Your task to perform on an android device: turn on translation in the chrome app Image 0: 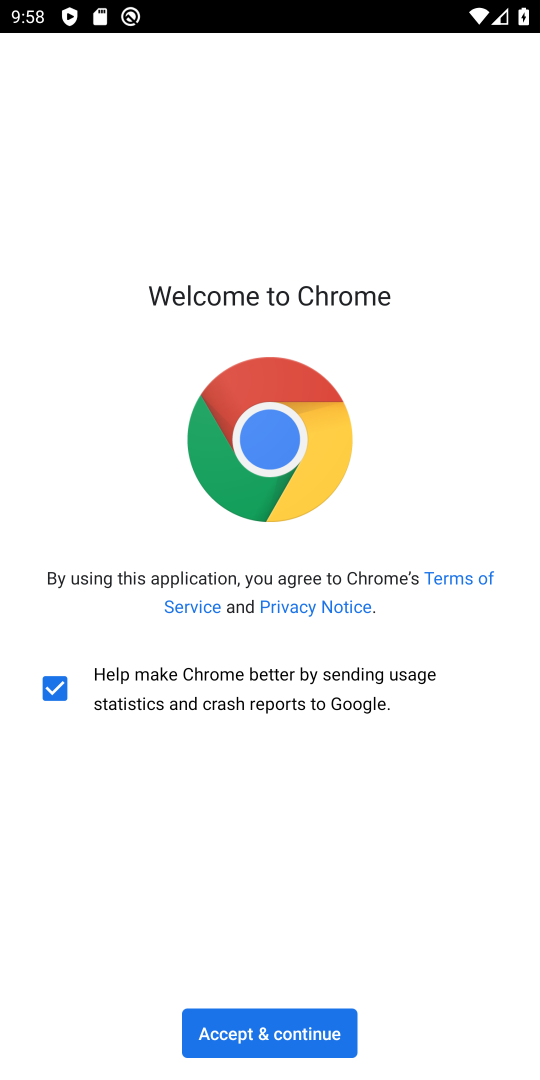
Step 0: click (328, 1043)
Your task to perform on an android device: turn on translation in the chrome app Image 1: 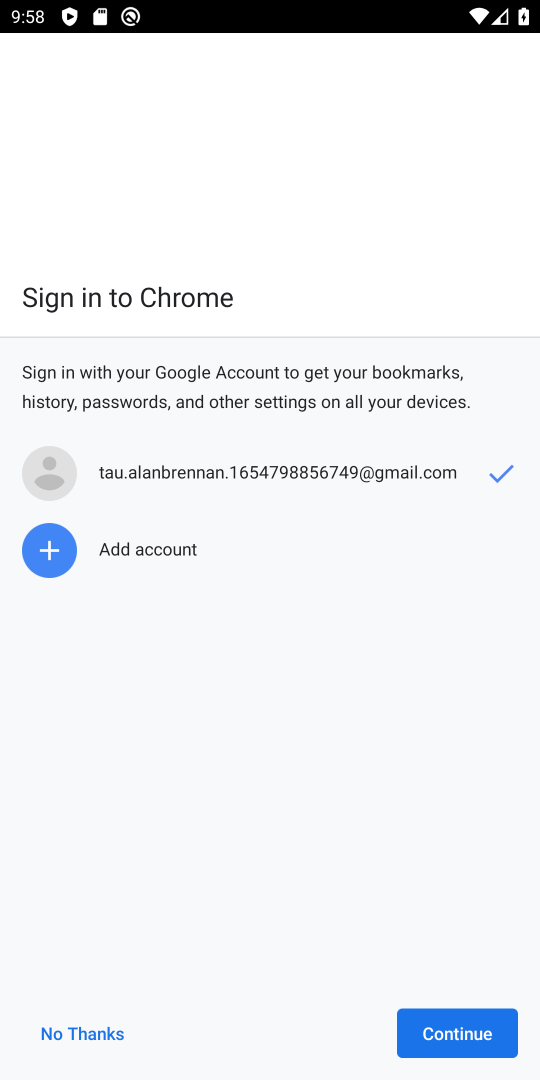
Step 1: click (494, 1041)
Your task to perform on an android device: turn on translation in the chrome app Image 2: 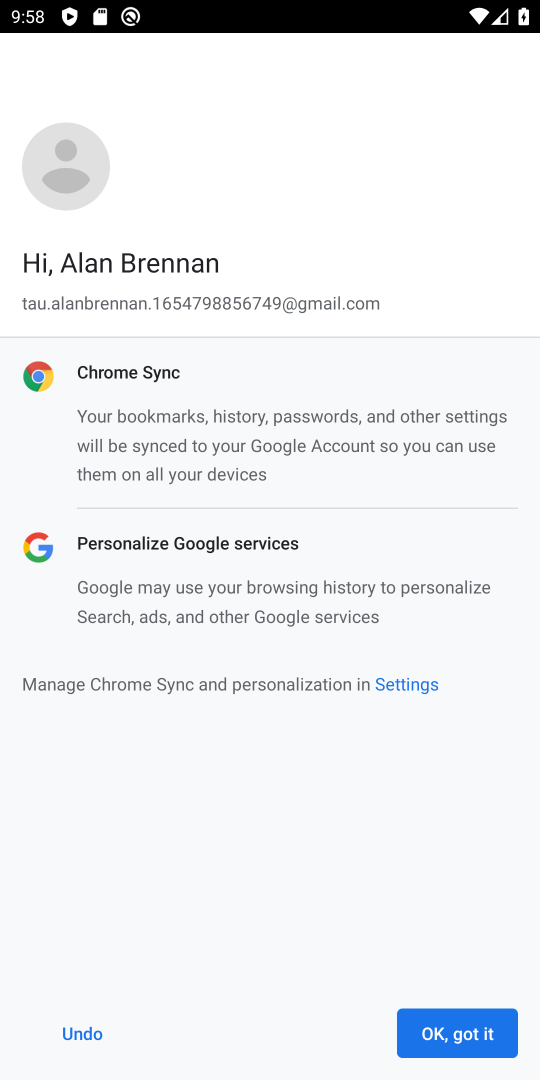
Step 2: click (493, 1040)
Your task to perform on an android device: turn on translation in the chrome app Image 3: 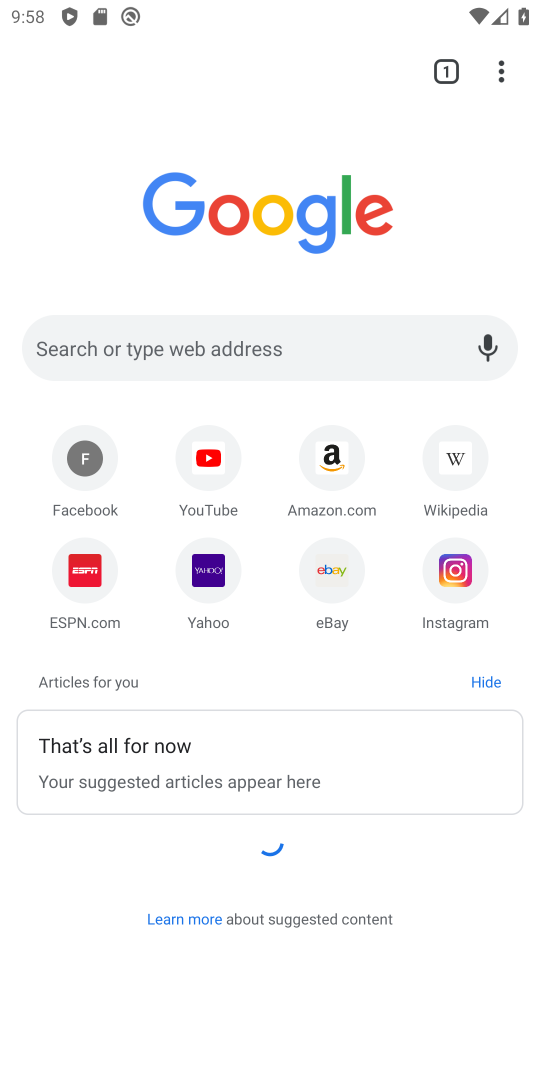
Step 3: click (507, 87)
Your task to perform on an android device: turn on translation in the chrome app Image 4: 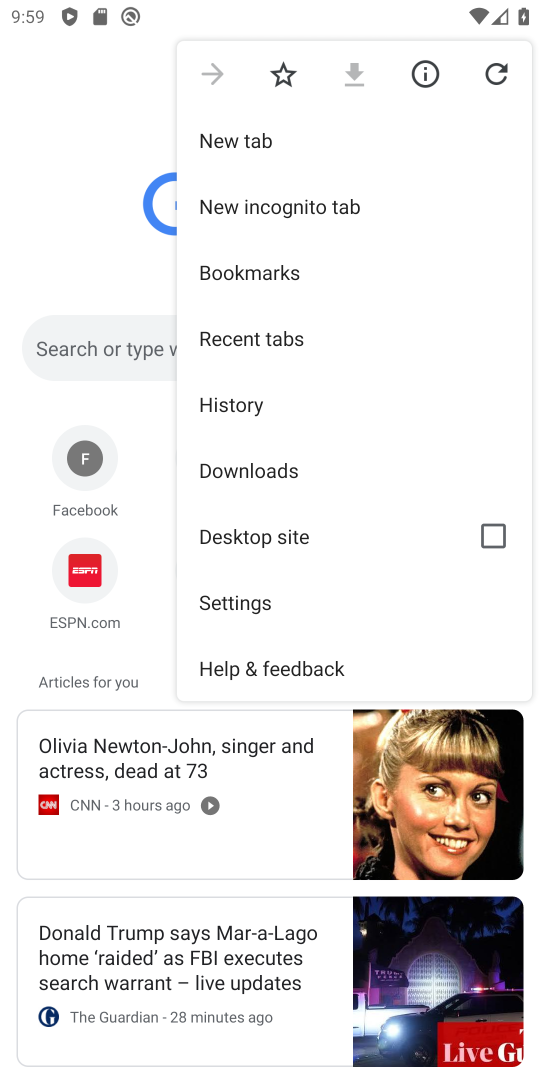
Step 4: click (295, 584)
Your task to perform on an android device: turn on translation in the chrome app Image 5: 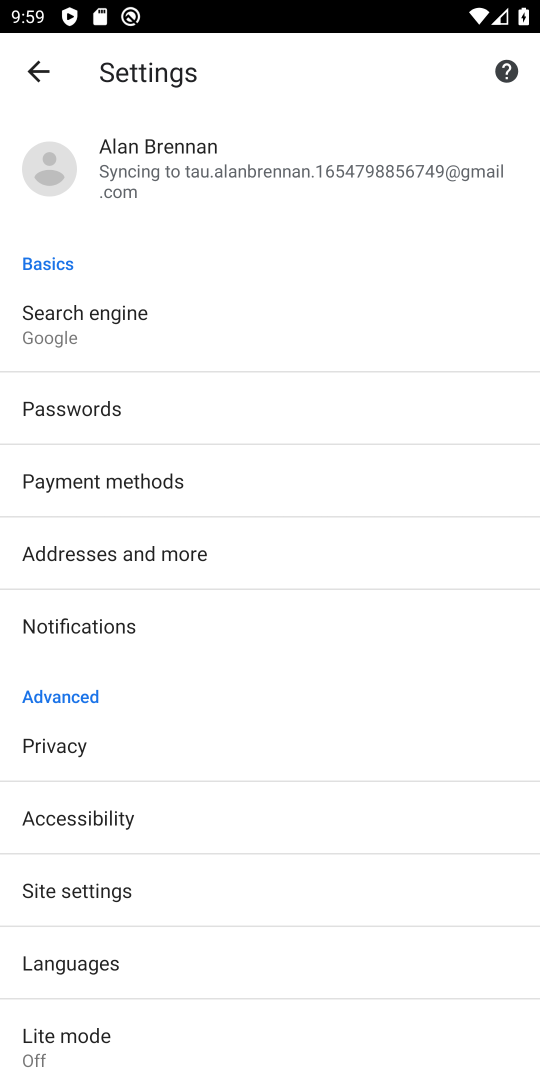
Step 5: drag from (185, 902) to (78, 202)
Your task to perform on an android device: turn on translation in the chrome app Image 6: 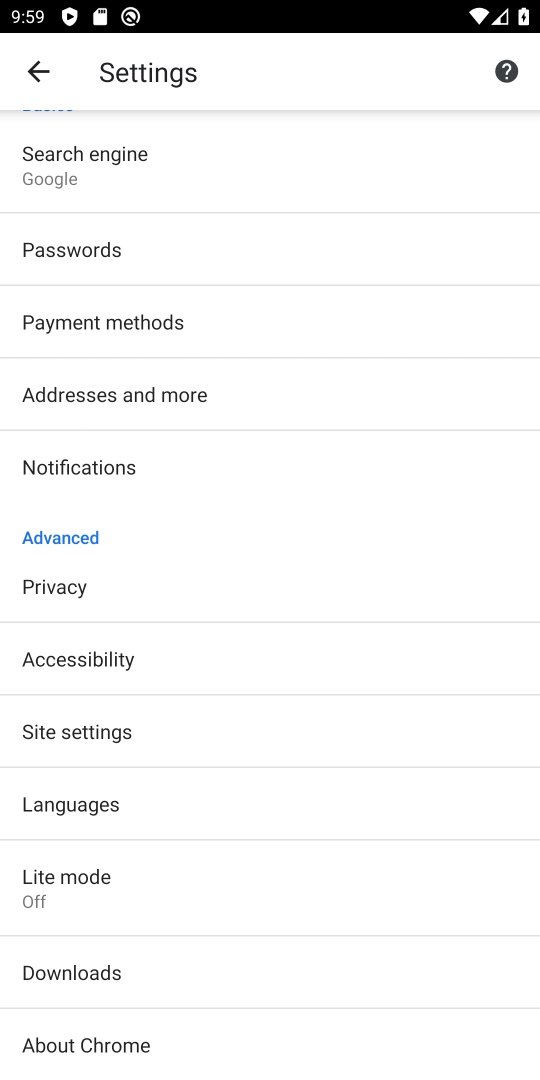
Step 6: click (101, 821)
Your task to perform on an android device: turn on translation in the chrome app Image 7: 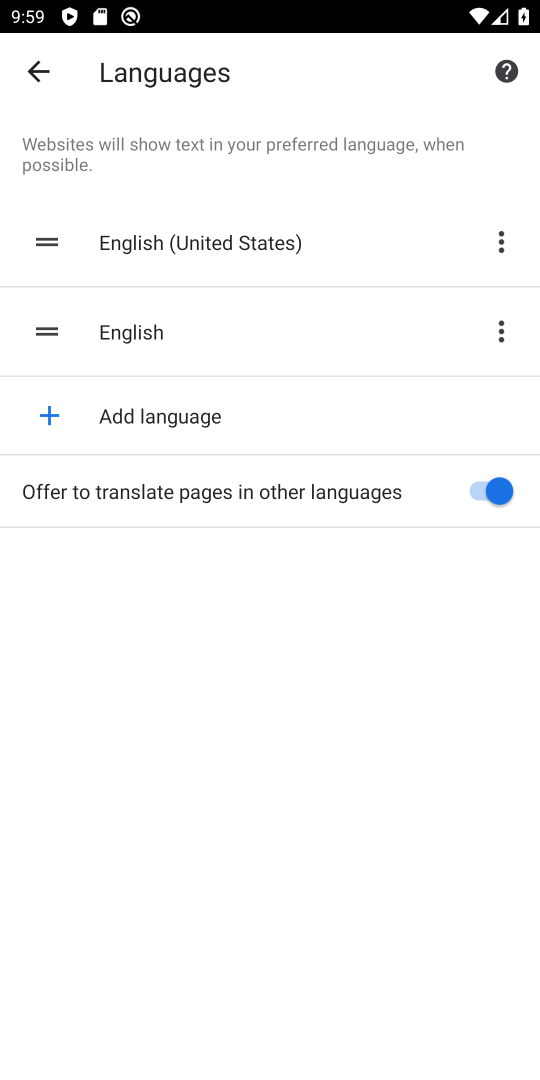
Step 7: task complete